Your task to perform on an android device: open device folders in google photos Image 0: 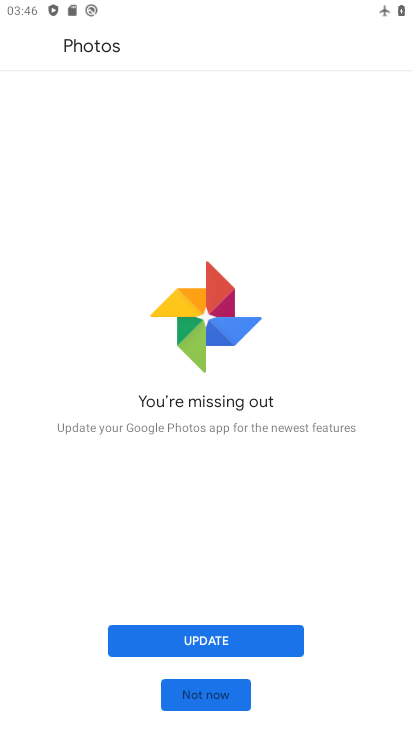
Step 0: press home button
Your task to perform on an android device: open device folders in google photos Image 1: 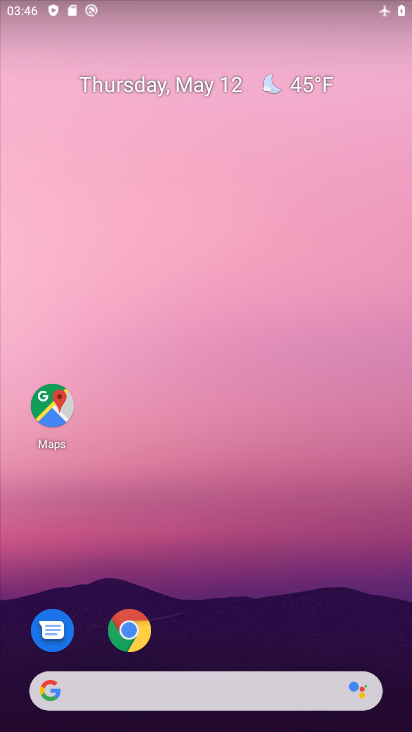
Step 1: drag from (213, 643) to (289, 7)
Your task to perform on an android device: open device folders in google photos Image 2: 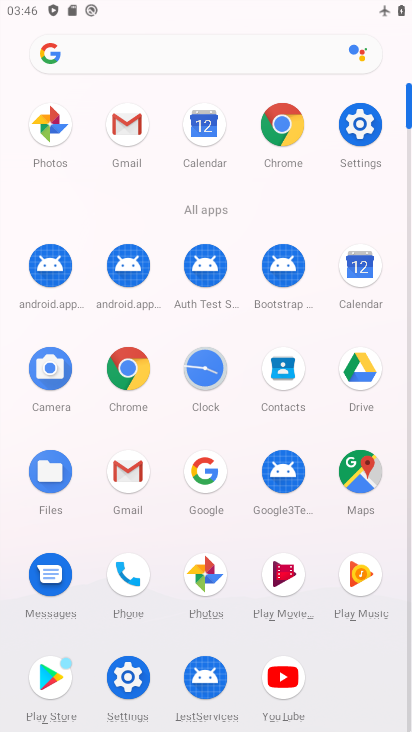
Step 2: click (220, 593)
Your task to perform on an android device: open device folders in google photos Image 3: 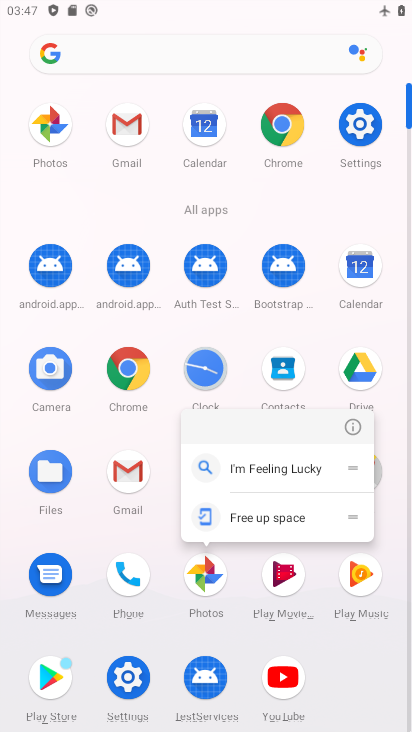
Step 3: click (208, 618)
Your task to perform on an android device: open device folders in google photos Image 4: 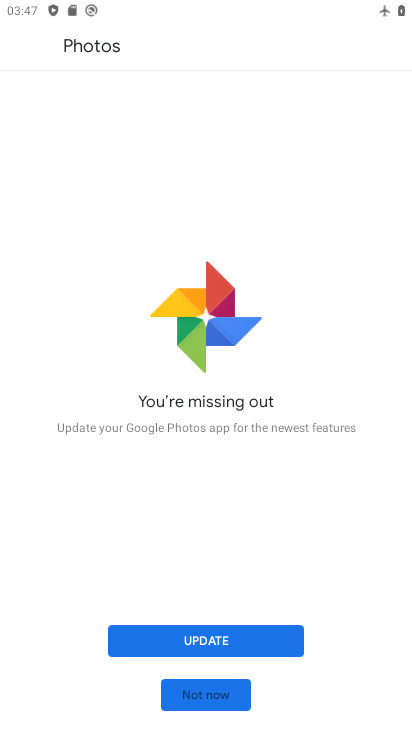
Step 4: click (201, 702)
Your task to perform on an android device: open device folders in google photos Image 5: 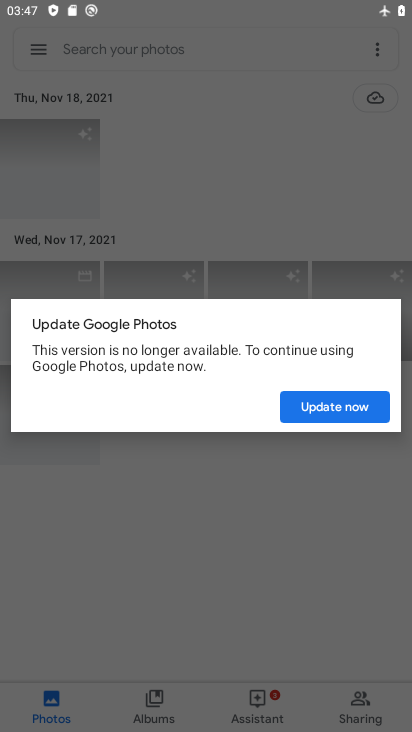
Step 5: click (314, 404)
Your task to perform on an android device: open device folders in google photos Image 6: 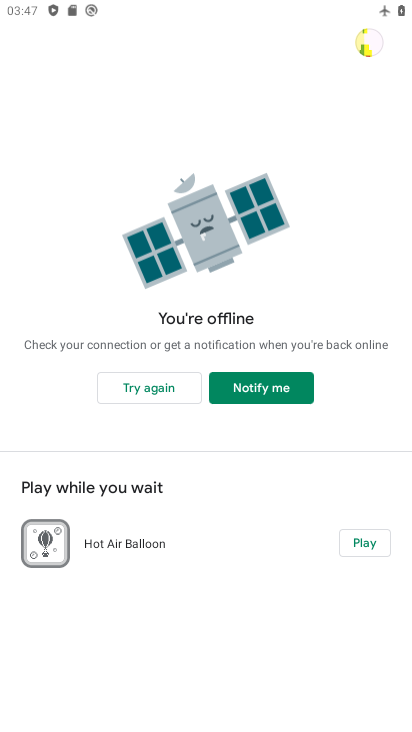
Step 6: press back button
Your task to perform on an android device: open device folders in google photos Image 7: 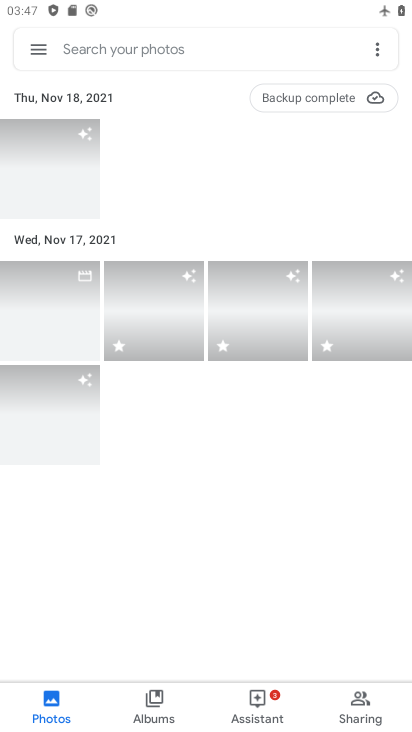
Step 7: click (43, 47)
Your task to perform on an android device: open device folders in google photos Image 8: 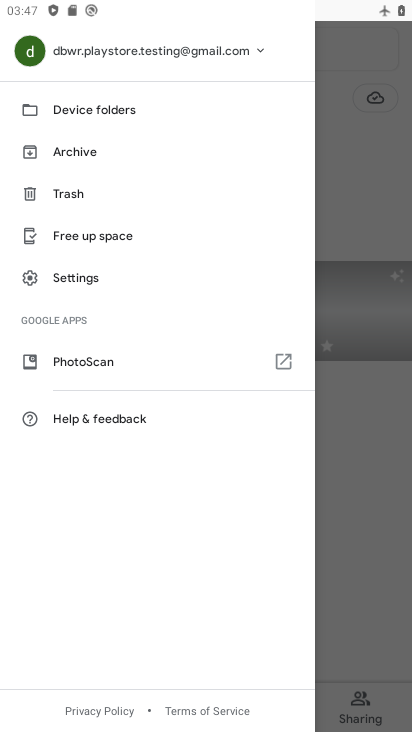
Step 8: click (122, 114)
Your task to perform on an android device: open device folders in google photos Image 9: 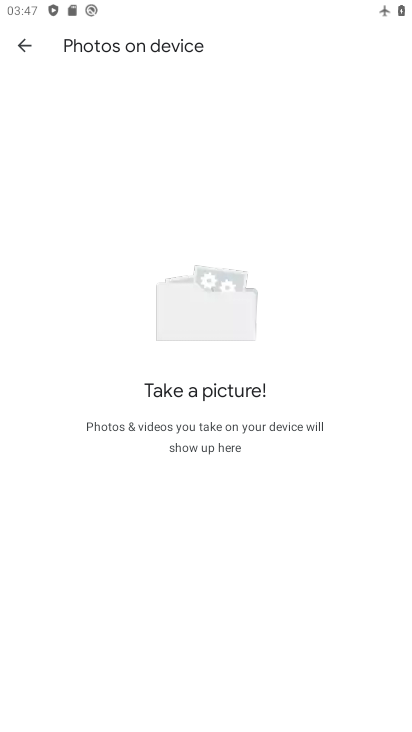
Step 9: task complete